Your task to perform on an android device: Open notification settings Image 0: 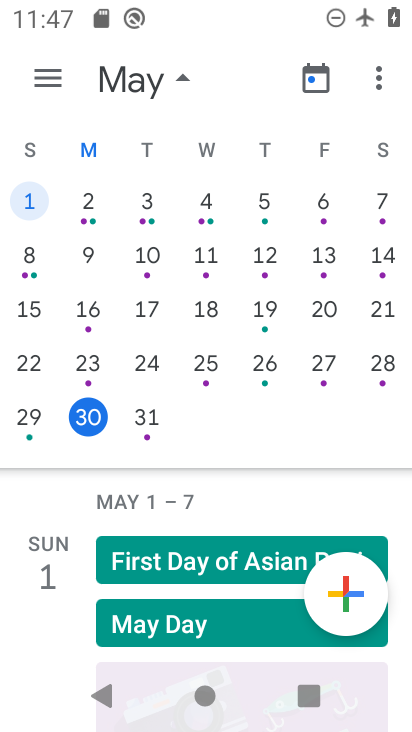
Step 0: drag from (392, 7) to (314, 509)
Your task to perform on an android device: Open notification settings Image 1: 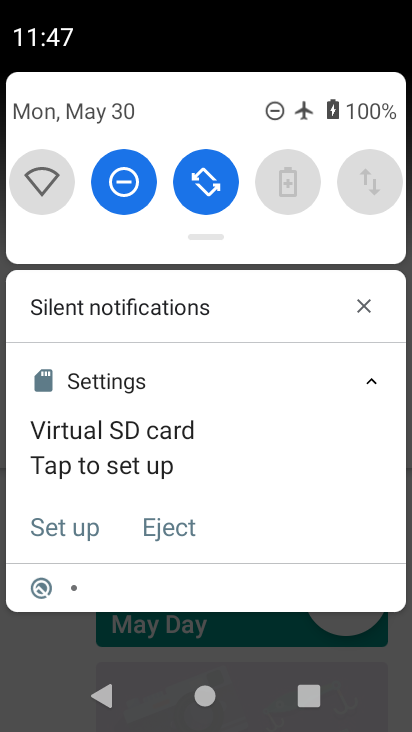
Step 1: drag from (202, 225) to (230, 485)
Your task to perform on an android device: Open notification settings Image 2: 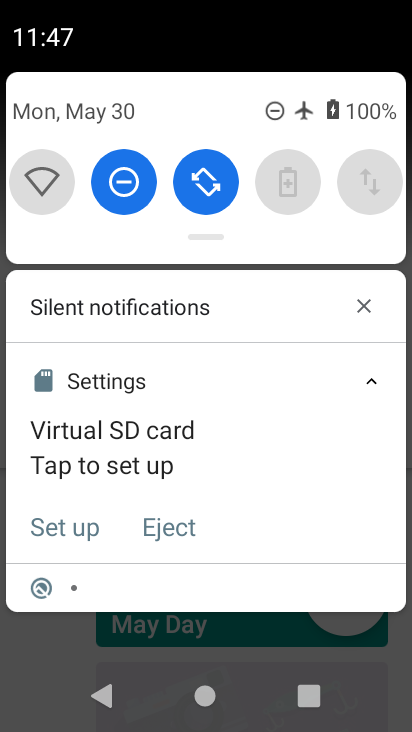
Step 2: drag from (355, 205) to (67, 207)
Your task to perform on an android device: Open notification settings Image 3: 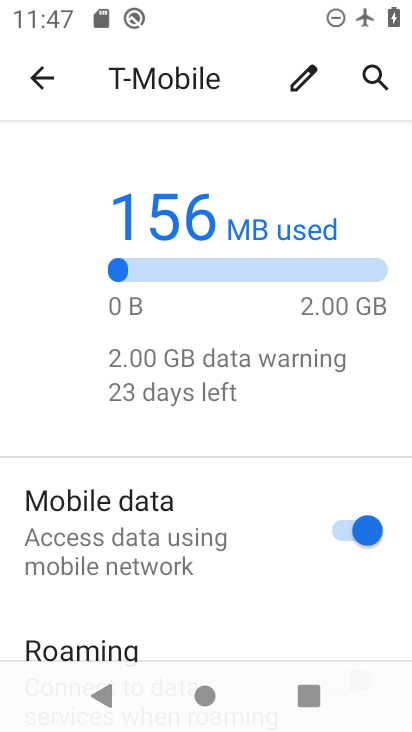
Step 3: click (52, 79)
Your task to perform on an android device: Open notification settings Image 4: 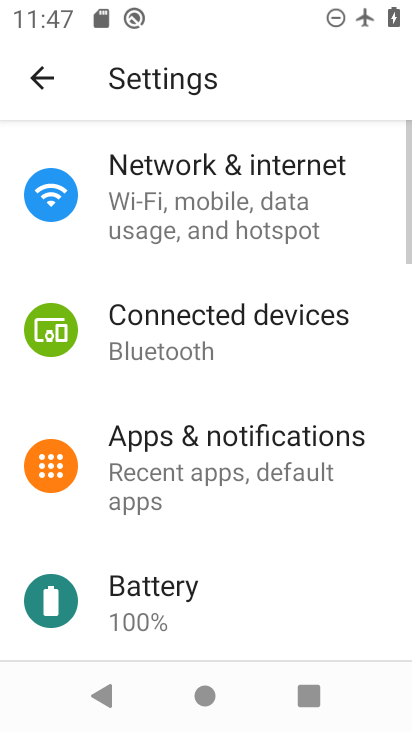
Step 4: click (186, 199)
Your task to perform on an android device: Open notification settings Image 5: 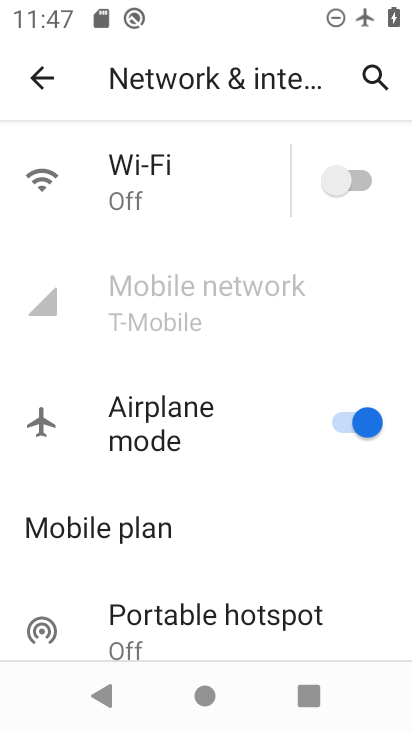
Step 5: click (368, 431)
Your task to perform on an android device: Open notification settings Image 6: 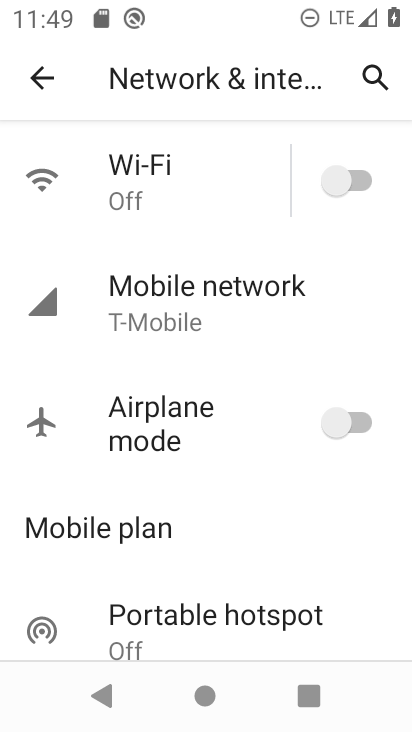
Step 6: press home button
Your task to perform on an android device: Open notification settings Image 7: 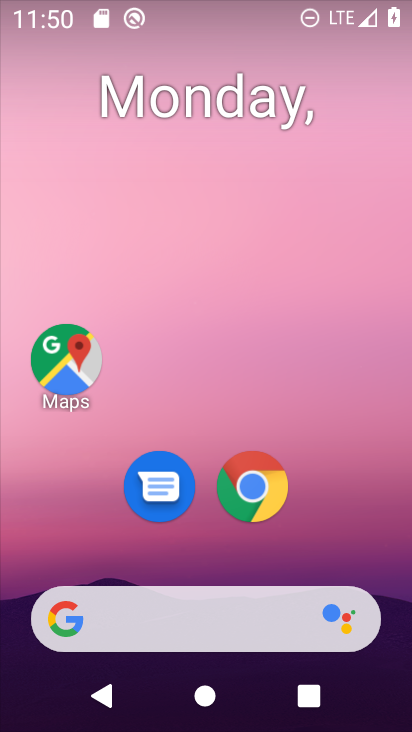
Step 7: drag from (62, 573) to (316, 112)
Your task to perform on an android device: Open notification settings Image 8: 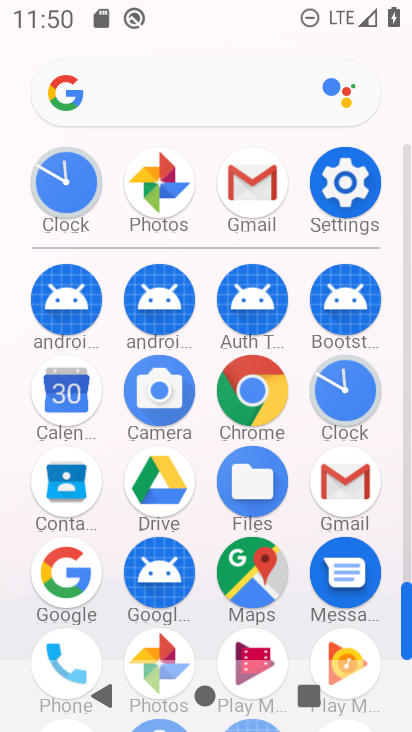
Step 8: click (354, 163)
Your task to perform on an android device: Open notification settings Image 9: 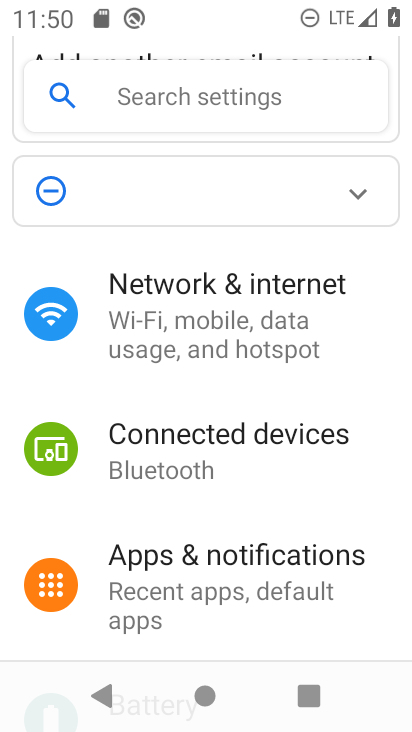
Step 9: click (194, 577)
Your task to perform on an android device: Open notification settings Image 10: 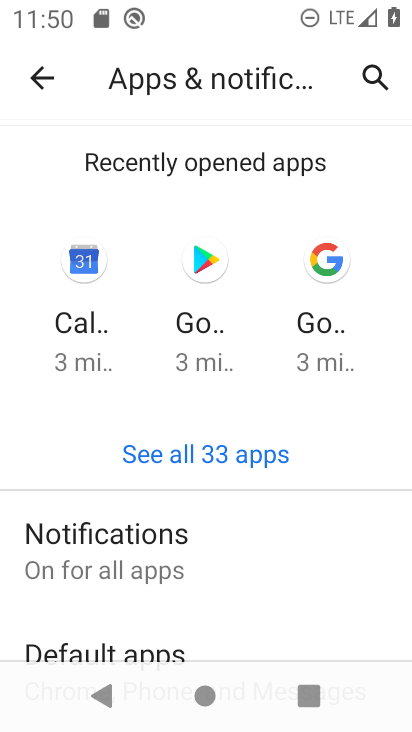
Step 10: click (168, 545)
Your task to perform on an android device: Open notification settings Image 11: 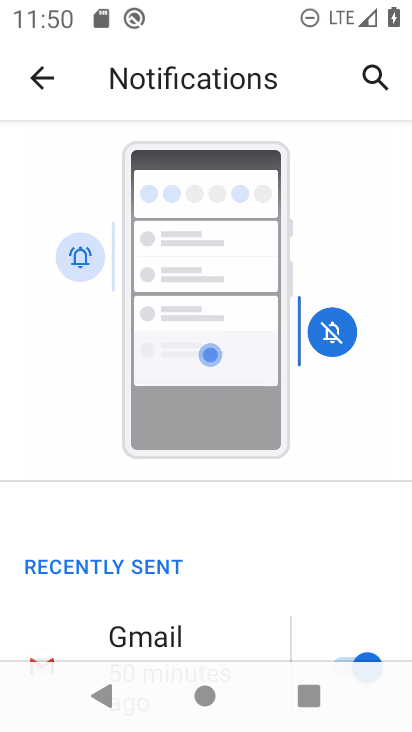
Step 11: task complete